Your task to perform on an android device: Open location settings Image 0: 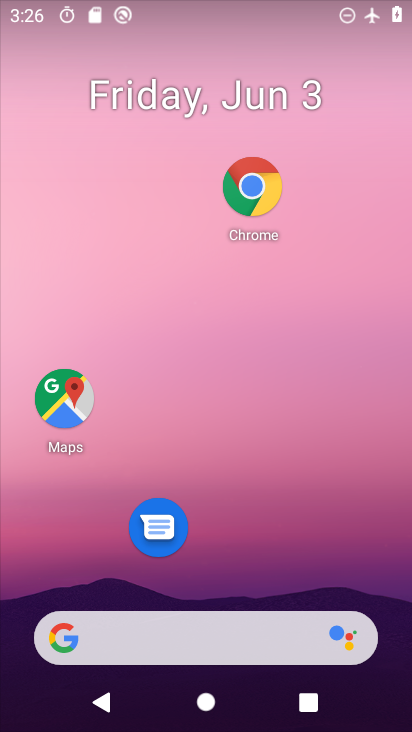
Step 0: drag from (259, 588) to (246, 107)
Your task to perform on an android device: Open location settings Image 1: 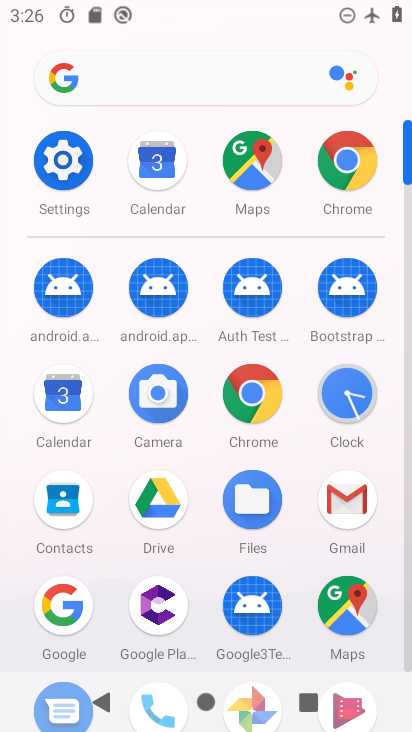
Step 1: click (67, 153)
Your task to perform on an android device: Open location settings Image 2: 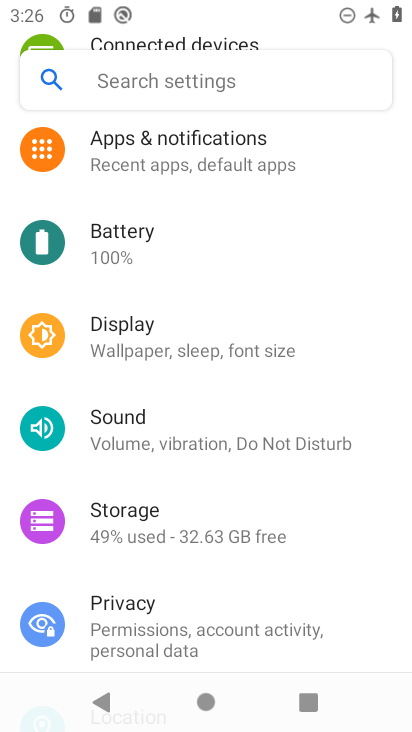
Step 2: drag from (181, 594) to (227, 142)
Your task to perform on an android device: Open location settings Image 3: 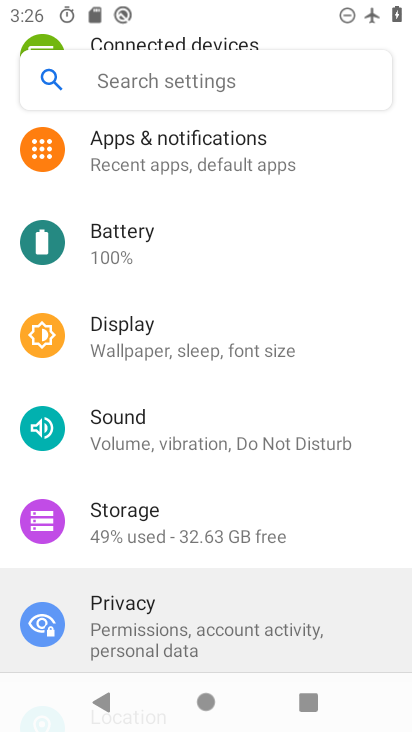
Step 3: drag from (251, 557) to (244, 284)
Your task to perform on an android device: Open location settings Image 4: 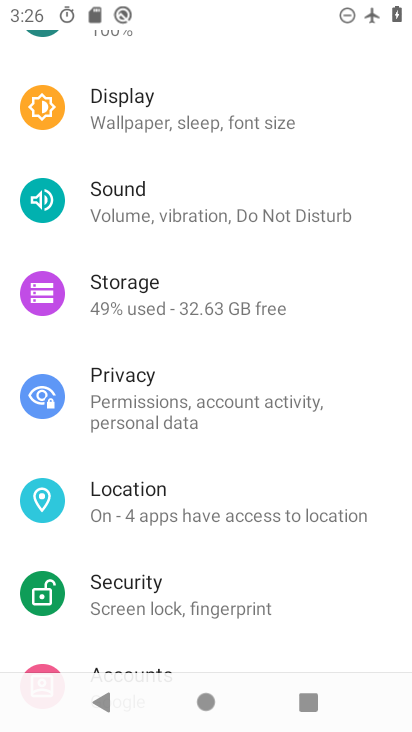
Step 4: click (220, 173)
Your task to perform on an android device: Open location settings Image 5: 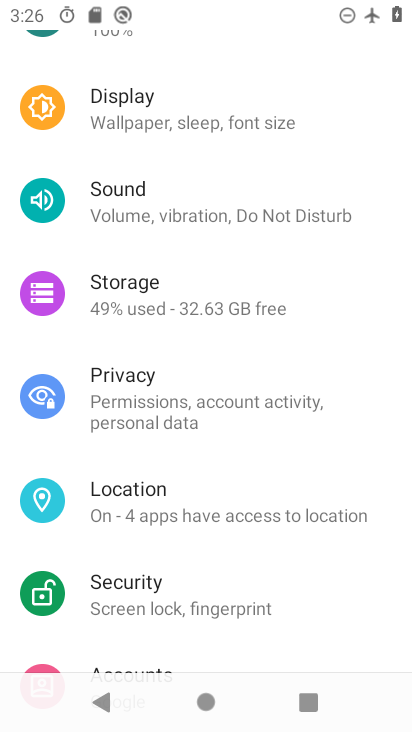
Step 5: drag from (244, 444) to (258, 222)
Your task to perform on an android device: Open location settings Image 6: 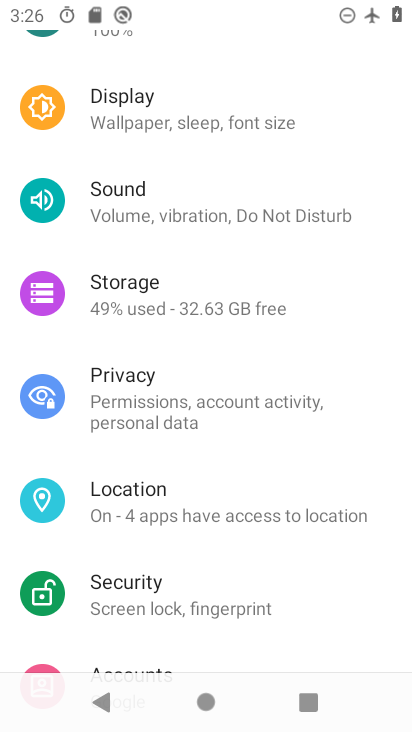
Step 6: click (187, 511)
Your task to perform on an android device: Open location settings Image 7: 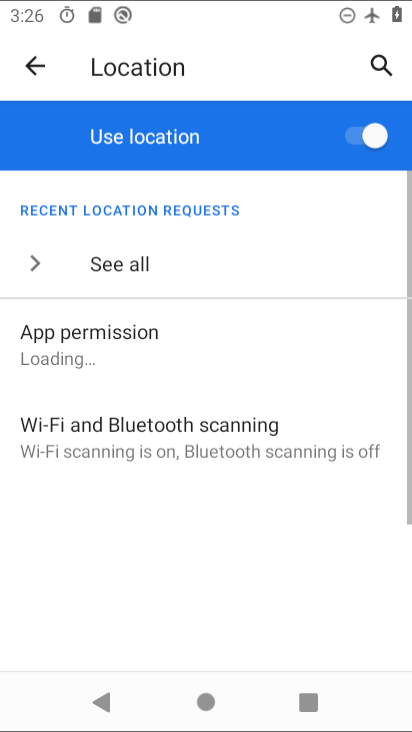
Step 7: click (186, 510)
Your task to perform on an android device: Open location settings Image 8: 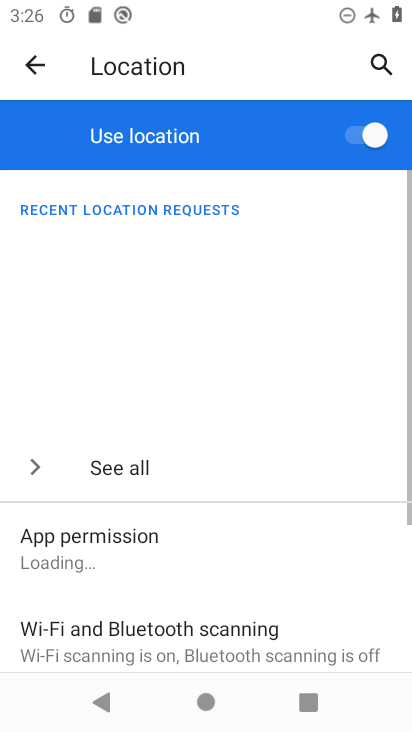
Step 8: click (186, 510)
Your task to perform on an android device: Open location settings Image 9: 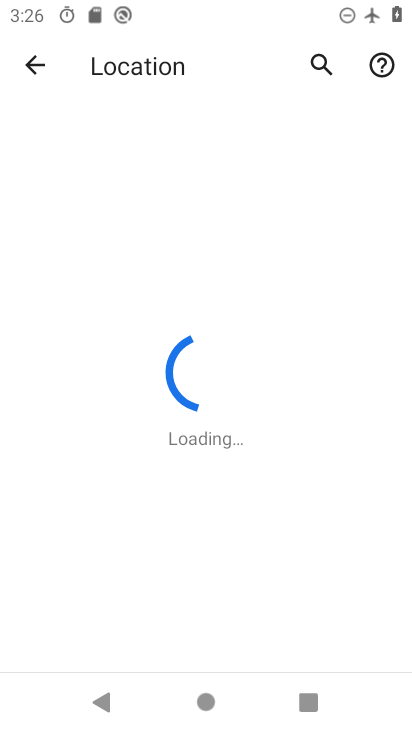
Step 9: click (23, 66)
Your task to perform on an android device: Open location settings Image 10: 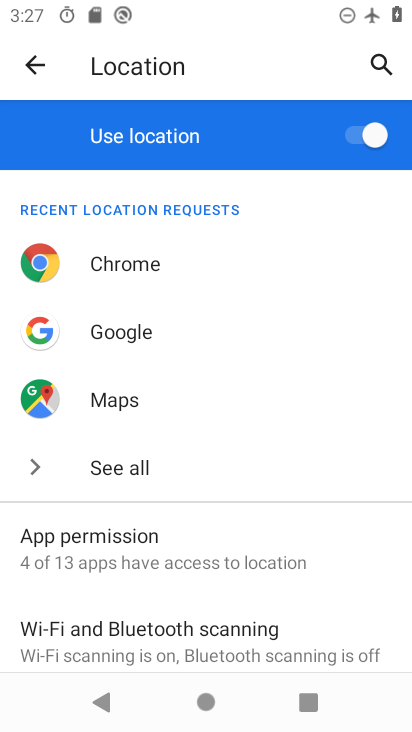
Step 10: task complete